Your task to perform on an android device: Open Google Image 0: 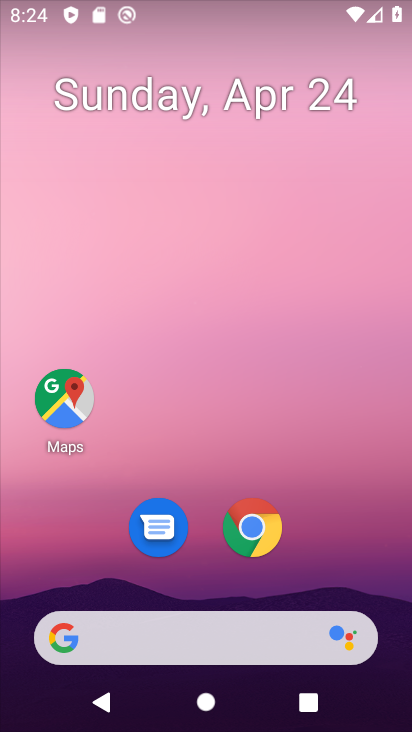
Step 0: drag from (194, 559) to (166, 153)
Your task to perform on an android device: Open Google Image 1: 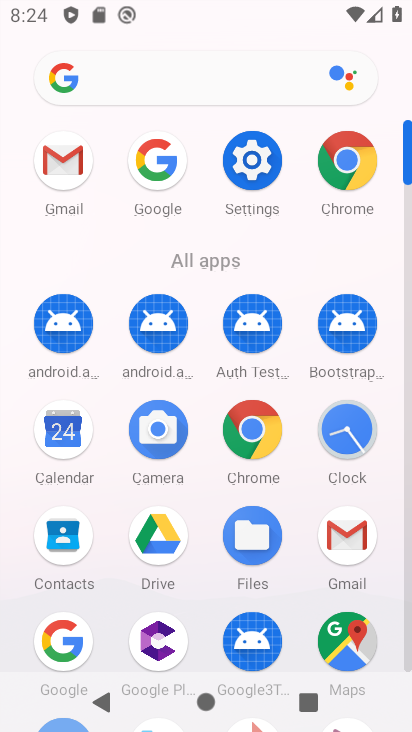
Step 1: click (74, 644)
Your task to perform on an android device: Open Google Image 2: 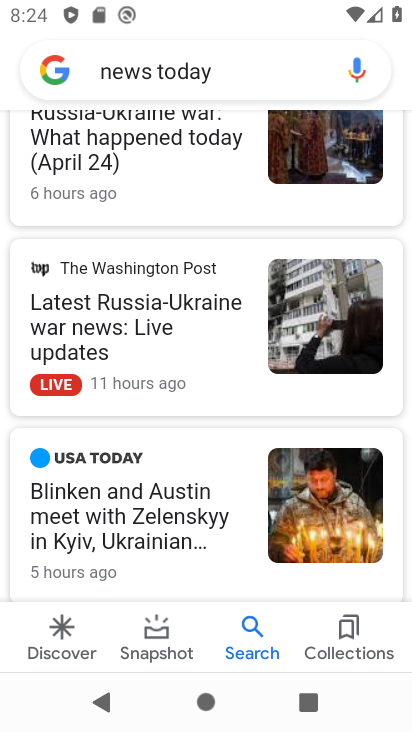
Step 2: task complete